Your task to perform on an android device: turn off javascript in the chrome app Image 0: 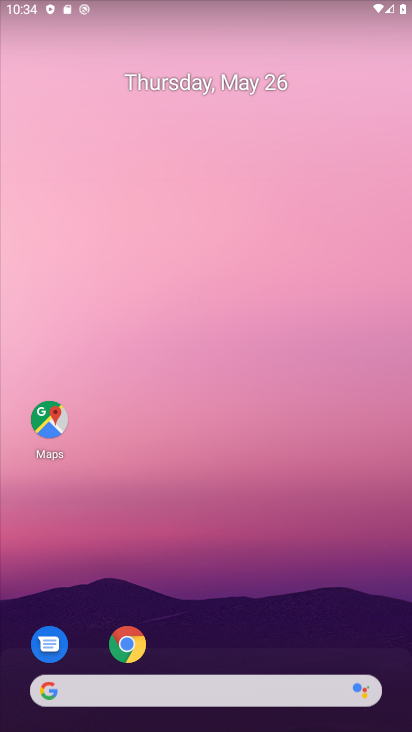
Step 0: click (136, 652)
Your task to perform on an android device: turn off javascript in the chrome app Image 1: 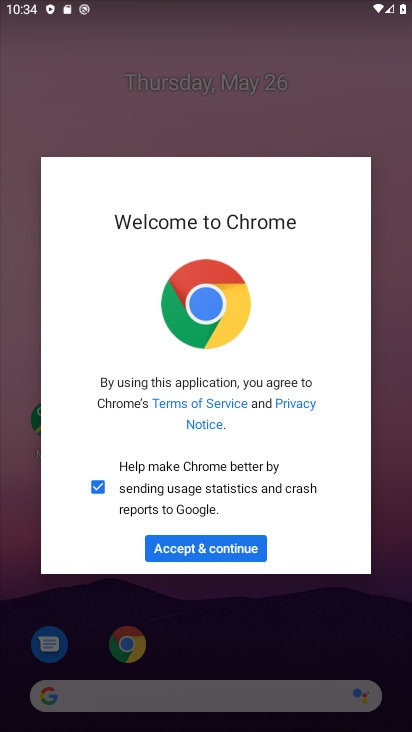
Step 1: click (225, 549)
Your task to perform on an android device: turn off javascript in the chrome app Image 2: 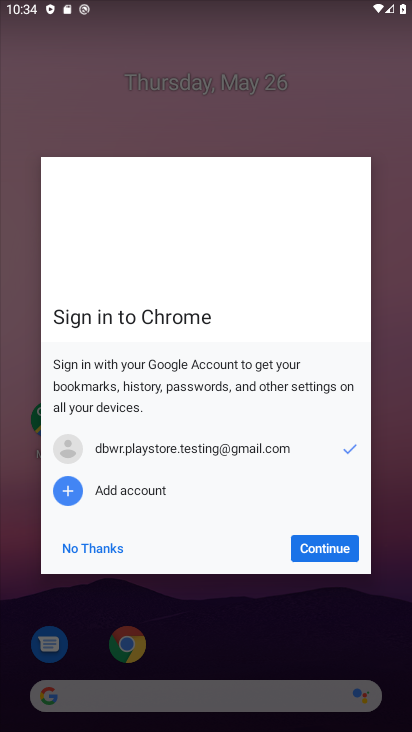
Step 2: click (315, 545)
Your task to perform on an android device: turn off javascript in the chrome app Image 3: 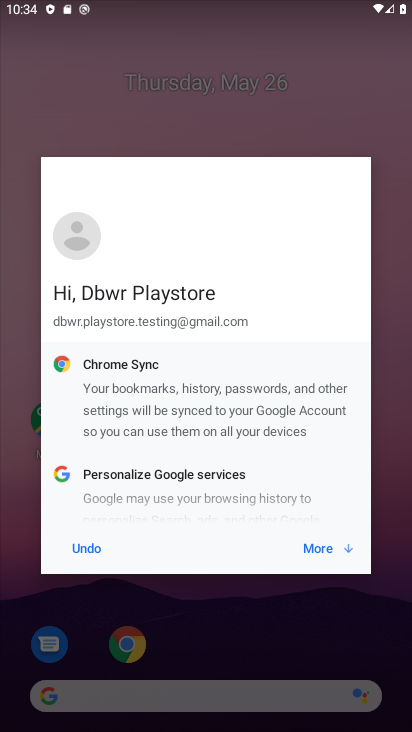
Step 3: click (315, 546)
Your task to perform on an android device: turn off javascript in the chrome app Image 4: 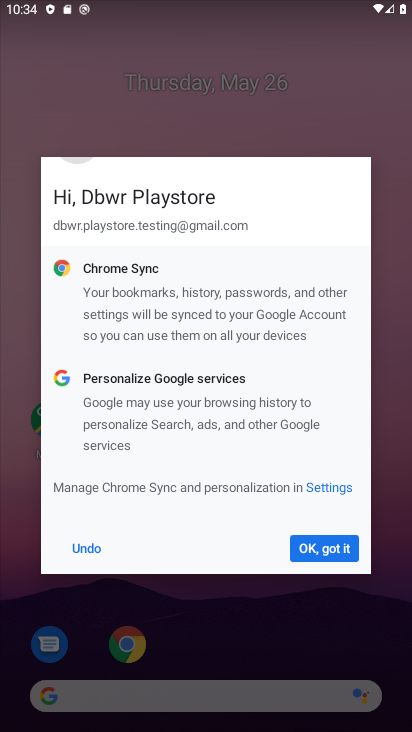
Step 4: click (313, 551)
Your task to perform on an android device: turn off javascript in the chrome app Image 5: 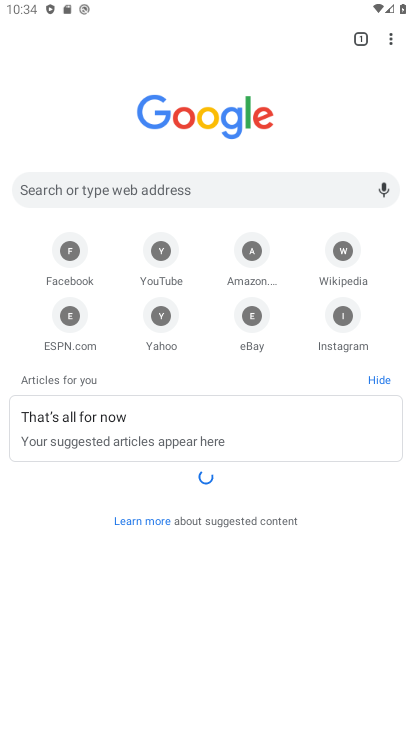
Step 5: drag from (386, 43) to (297, 327)
Your task to perform on an android device: turn off javascript in the chrome app Image 6: 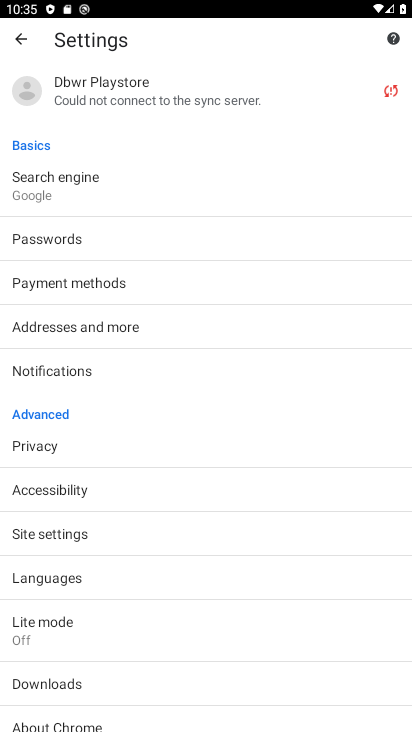
Step 6: drag from (143, 662) to (226, 381)
Your task to perform on an android device: turn off javascript in the chrome app Image 7: 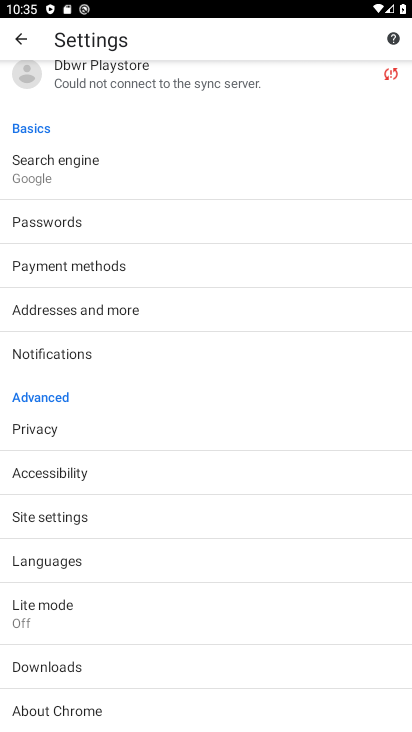
Step 7: click (137, 522)
Your task to perform on an android device: turn off javascript in the chrome app Image 8: 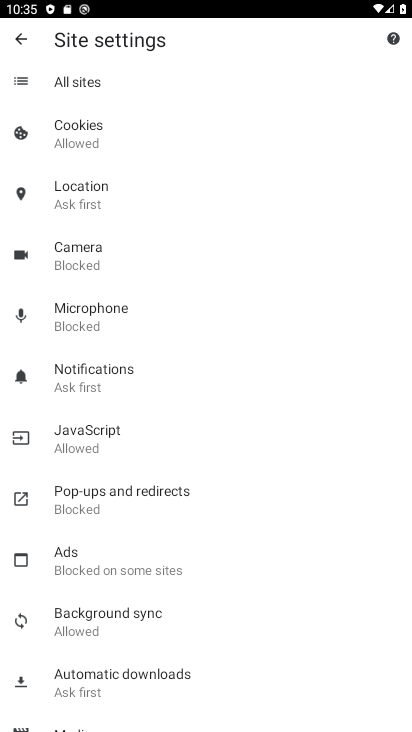
Step 8: click (122, 441)
Your task to perform on an android device: turn off javascript in the chrome app Image 9: 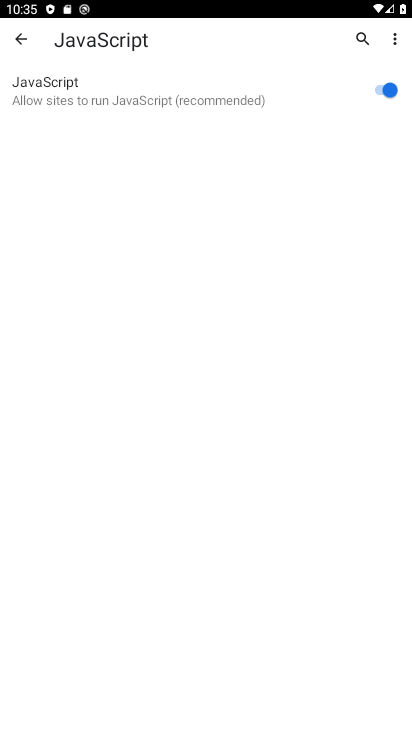
Step 9: click (381, 87)
Your task to perform on an android device: turn off javascript in the chrome app Image 10: 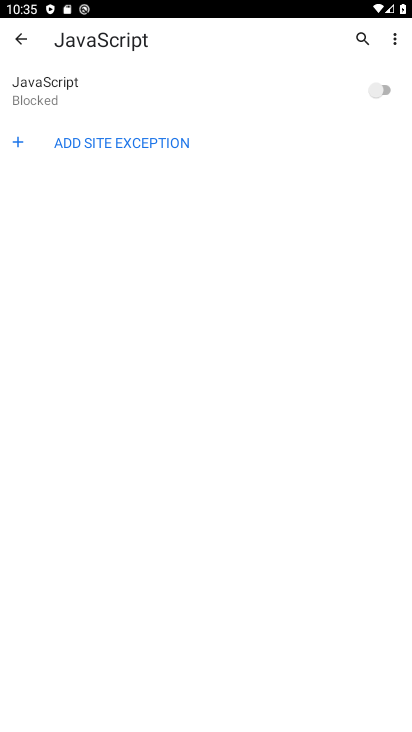
Step 10: task complete